Your task to perform on an android device: Check the weather Image 0: 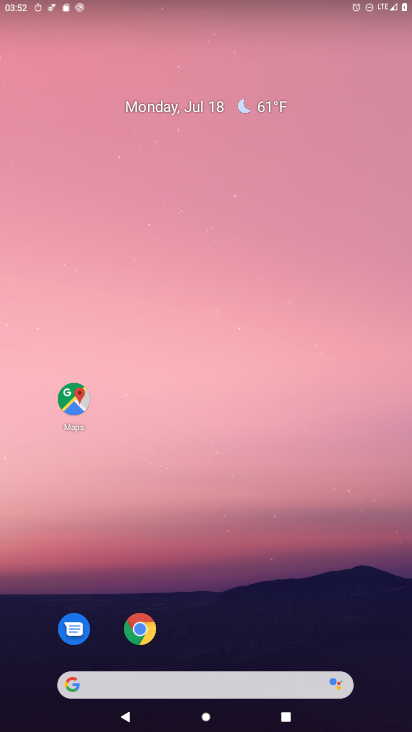
Step 0: drag from (181, 674) to (208, 234)
Your task to perform on an android device: Check the weather Image 1: 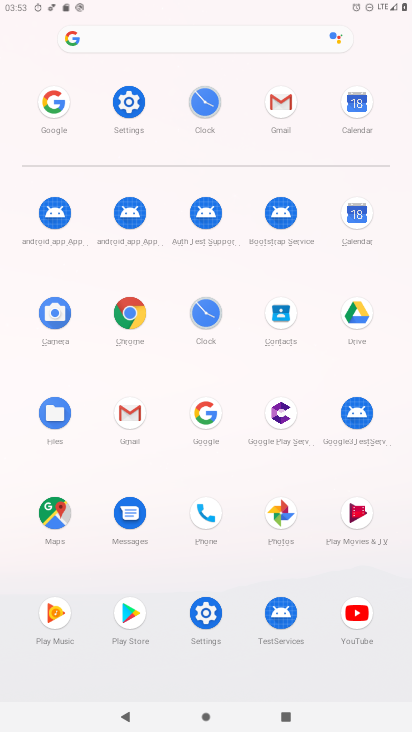
Step 1: click (209, 413)
Your task to perform on an android device: Check the weather Image 2: 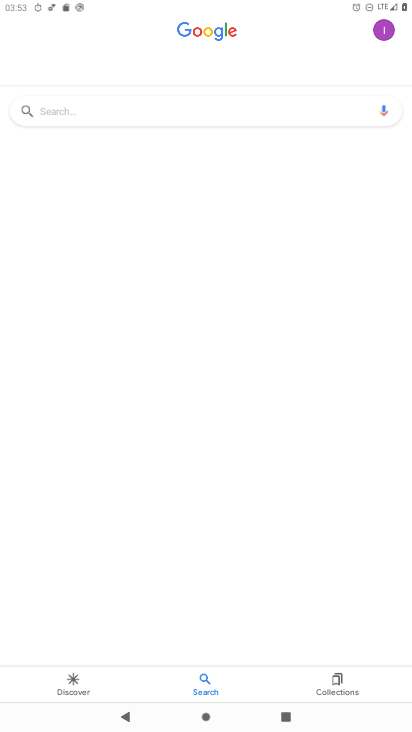
Step 2: click (197, 112)
Your task to perform on an android device: Check the weather Image 3: 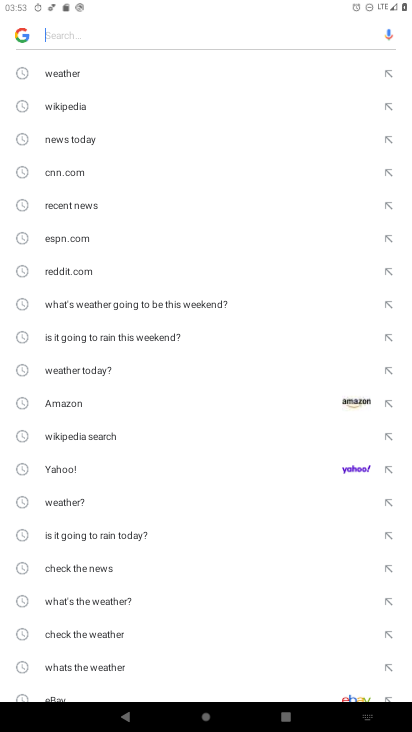
Step 3: click (72, 72)
Your task to perform on an android device: Check the weather Image 4: 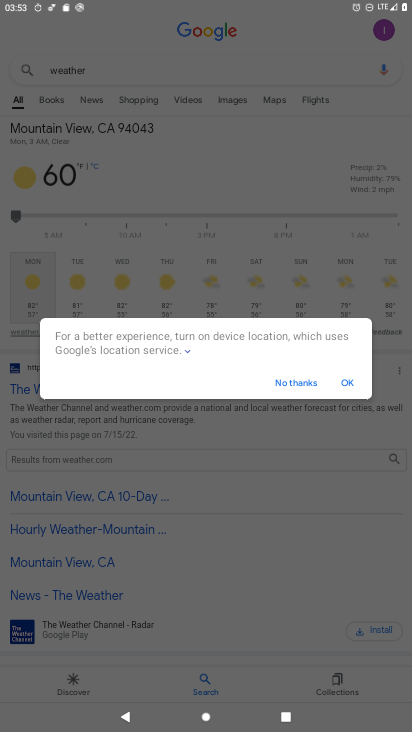
Step 4: click (348, 383)
Your task to perform on an android device: Check the weather Image 5: 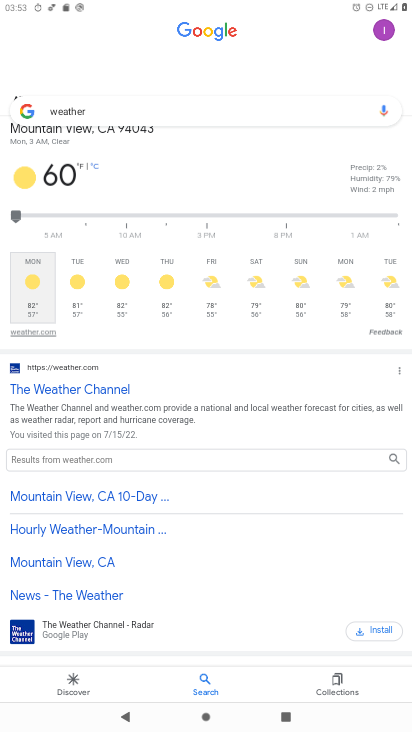
Step 5: task complete